Your task to perform on an android device: open a bookmark in the chrome app Image 0: 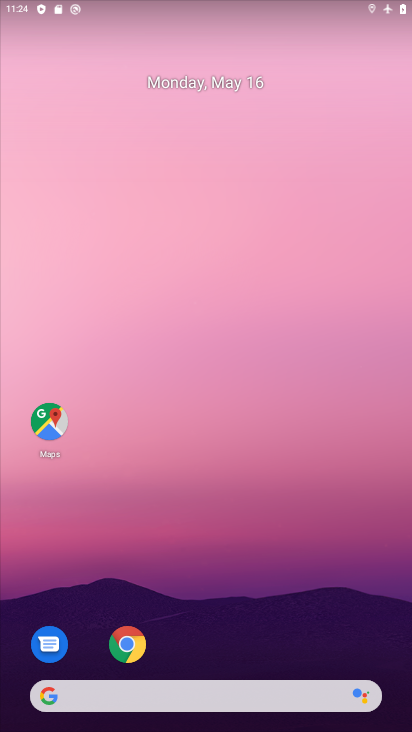
Step 0: drag from (268, 614) to (275, 254)
Your task to perform on an android device: open a bookmark in the chrome app Image 1: 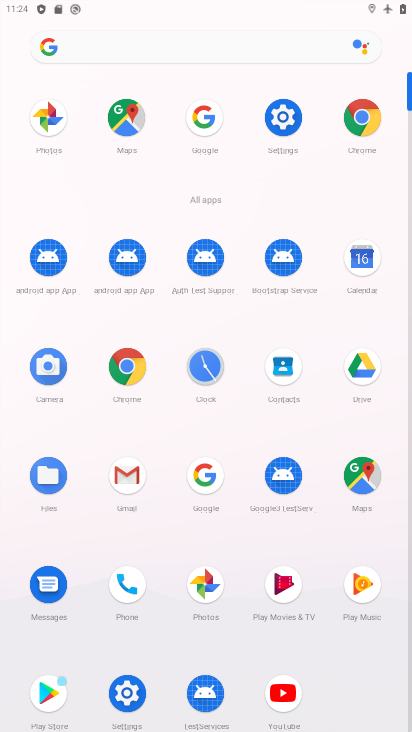
Step 1: click (359, 119)
Your task to perform on an android device: open a bookmark in the chrome app Image 2: 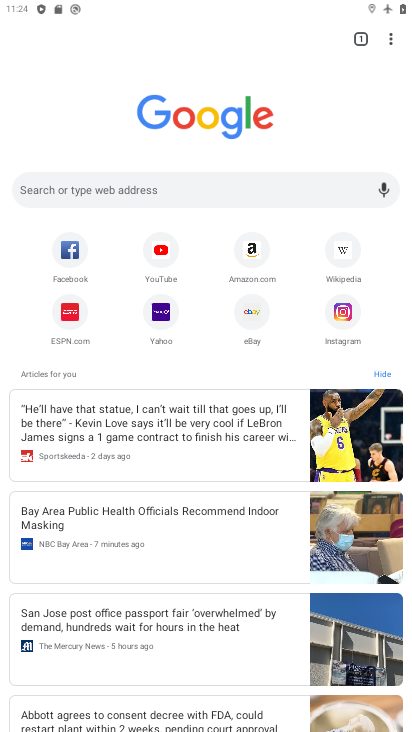
Step 2: click (386, 37)
Your task to perform on an android device: open a bookmark in the chrome app Image 3: 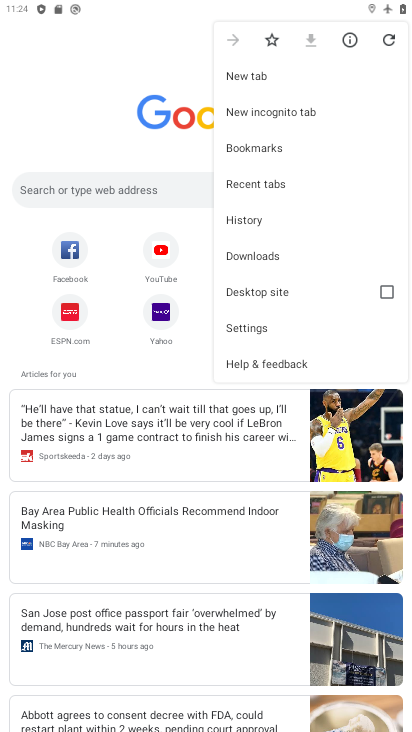
Step 3: click (247, 145)
Your task to perform on an android device: open a bookmark in the chrome app Image 4: 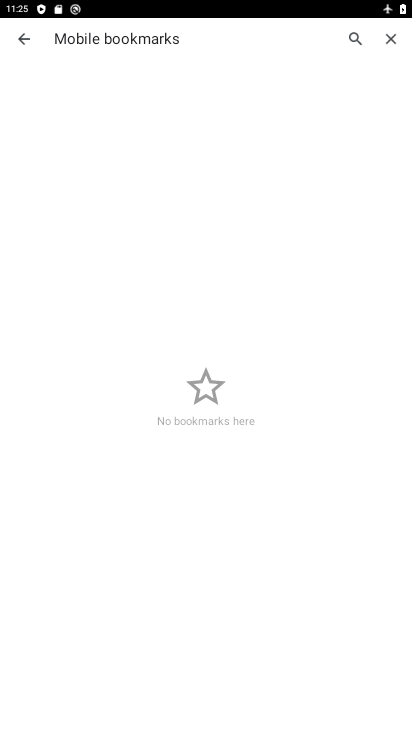
Step 4: task complete